Your task to perform on an android device: check out phone information Image 0: 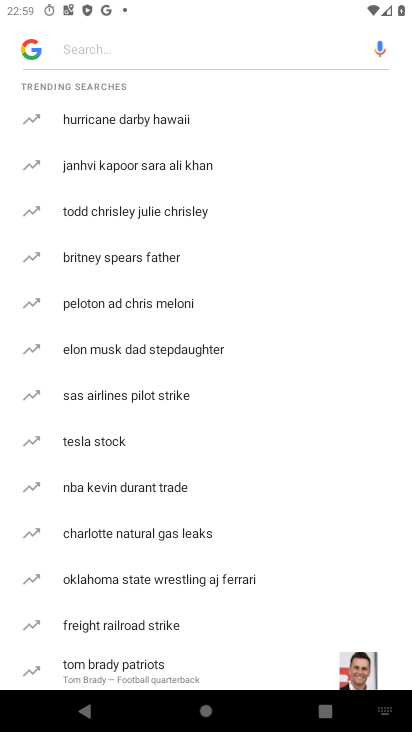
Step 0: press home button
Your task to perform on an android device: check out phone information Image 1: 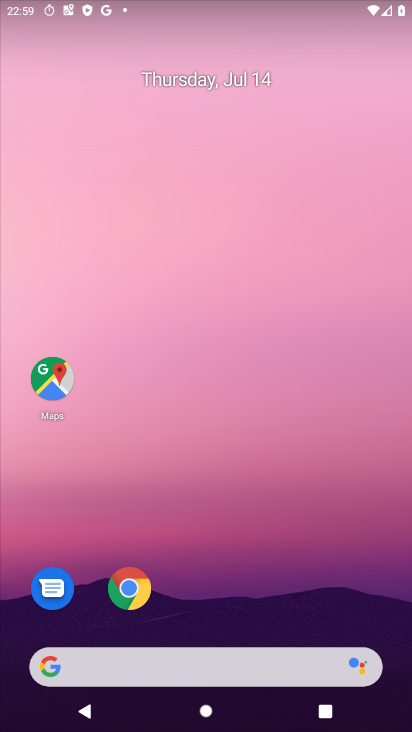
Step 1: drag from (235, 605) to (225, 167)
Your task to perform on an android device: check out phone information Image 2: 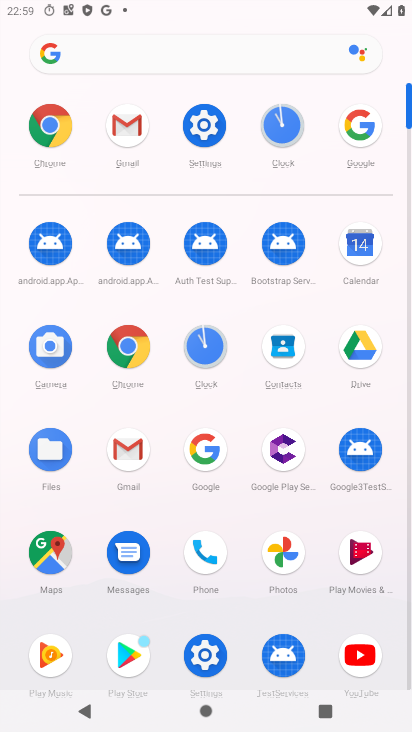
Step 2: click (203, 127)
Your task to perform on an android device: check out phone information Image 3: 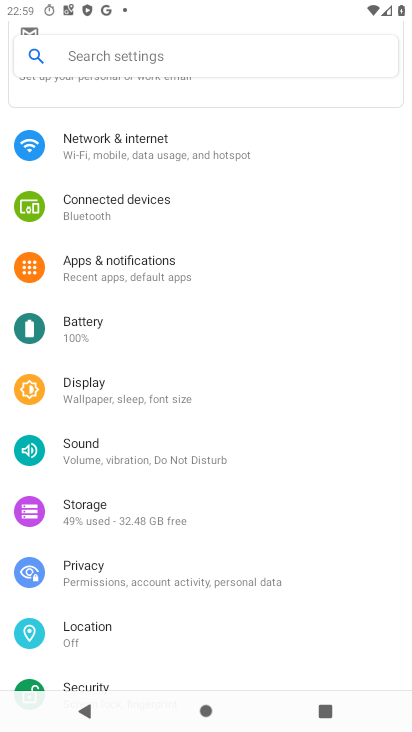
Step 3: drag from (189, 635) to (192, 76)
Your task to perform on an android device: check out phone information Image 4: 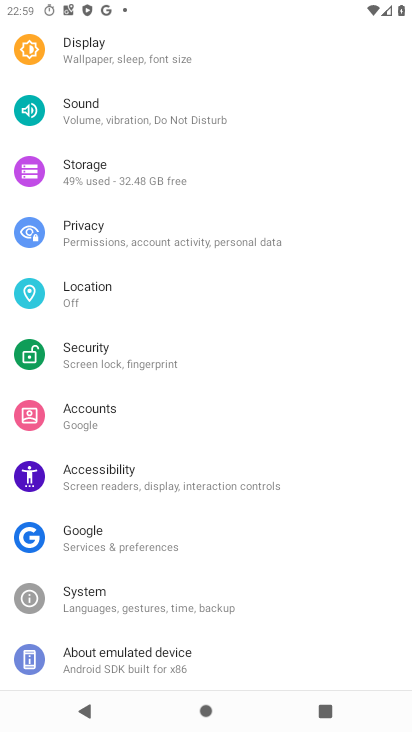
Step 4: click (128, 659)
Your task to perform on an android device: check out phone information Image 5: 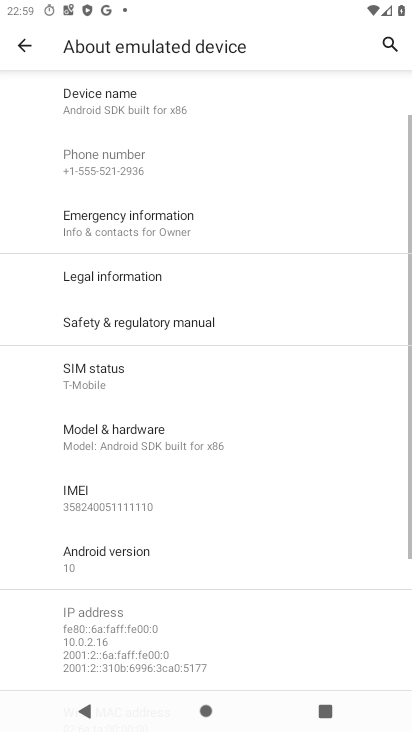
Step 5: task complete